Your task to perform on an android device: Go to internet settings Image 0: 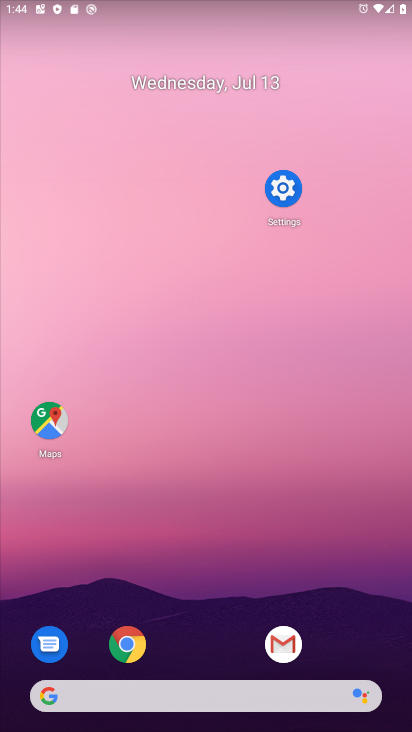
Step 0: click (271, 188)
Your task to perform on an android device: Go to internet settings Image 1: 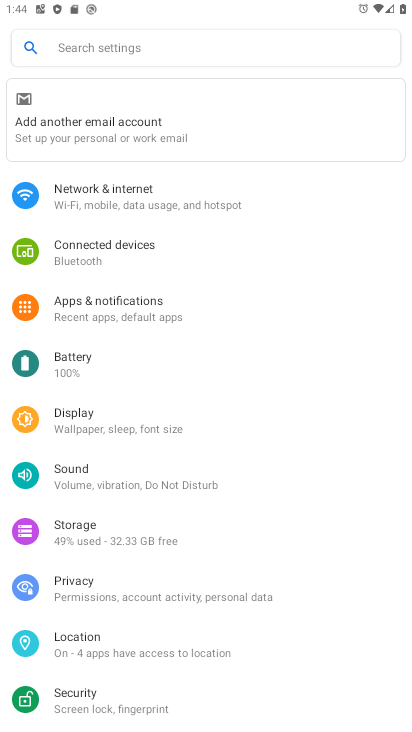
Step 1: click (136, 203)
Your task to perform on an android device: Go to internet settings Image 2: 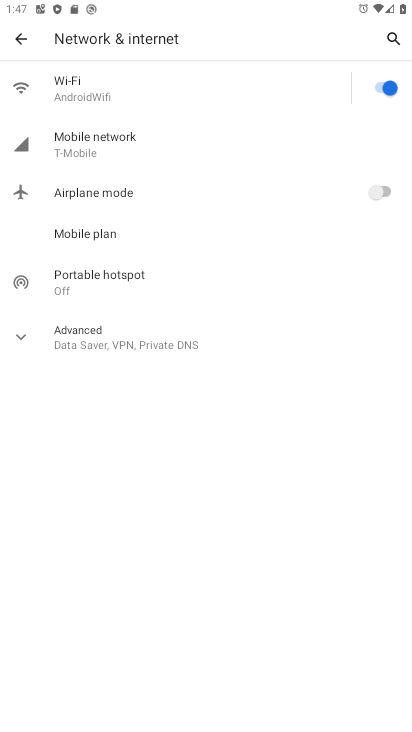
Step 2: task complete